Your task to perform on an android device: Show me popular games on the Play Store Image 0: 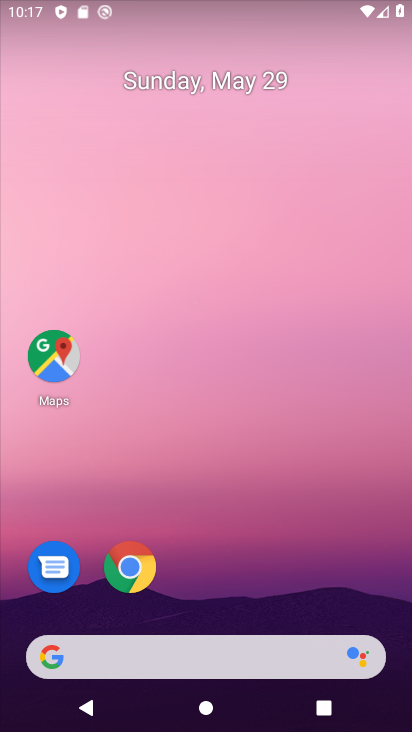
Step 0: drag from (199, 631) to (322, 187)
Your task to perform on an android device: Show me popular games on the Play Store Image 1: 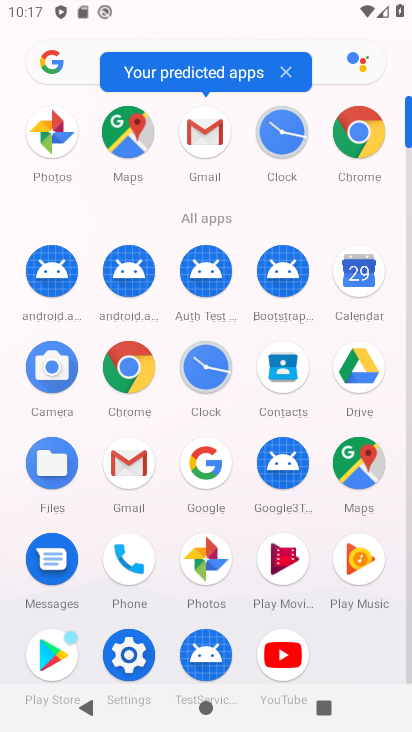
Step 1: click (50, 658)
Your task to perform on an android device: Show me popular games on the Play Store Image 2: 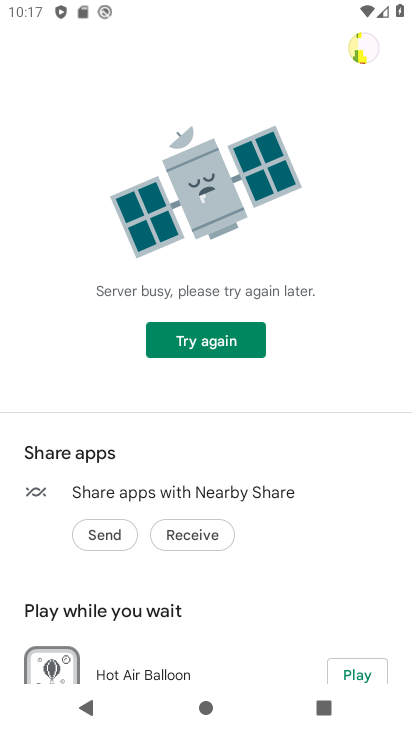
Step 2: task complete